Your task to perform on an android device: check storage Image 0: 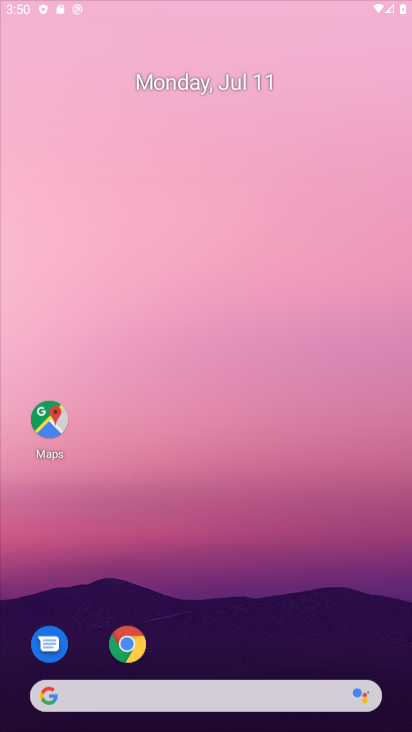
Step 0: press home button
Your task to perform on an android device: check storage Image 1: 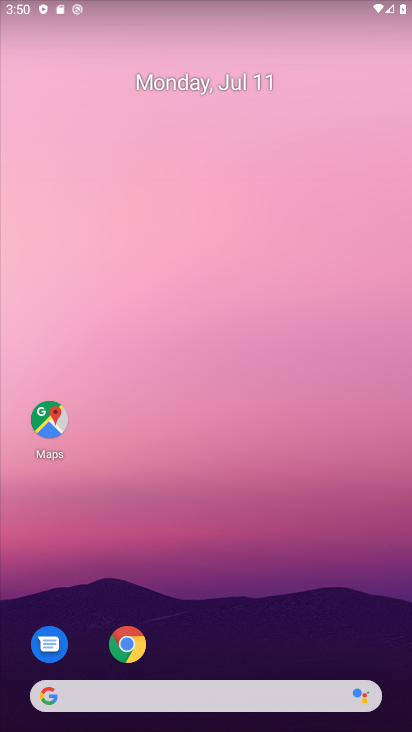
Step 1: drag from (234, 659) to (266, 91)
Your task to perform on an android device: check storage Image 2: 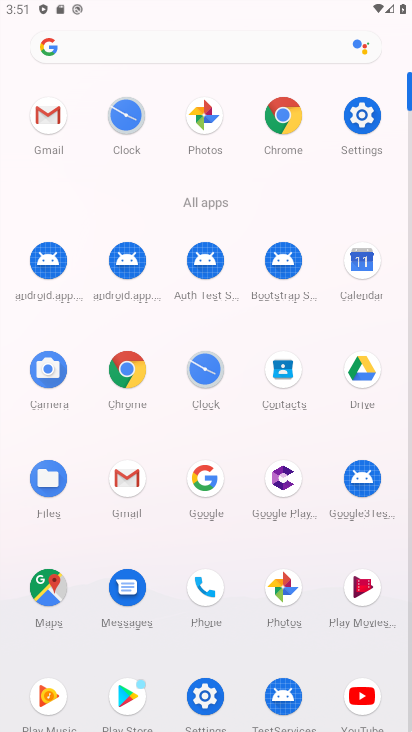
Step 2: click (360, 106)
Your task to perform on an android device: check storage Image 3: 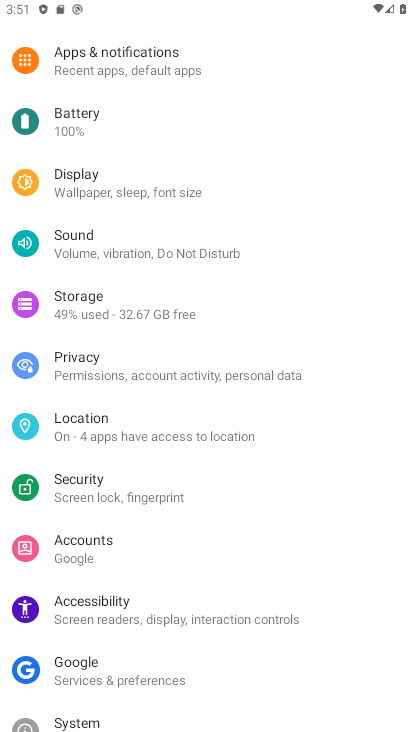
Step 3: click (101, 299)
Your task to perform on an android device: check storage Image 4: 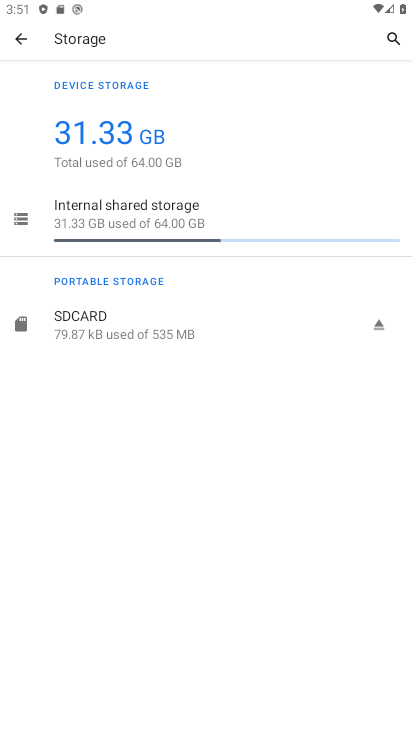
Step 4: task complete